Your task to perform on an android device: check out phone information Image 0: 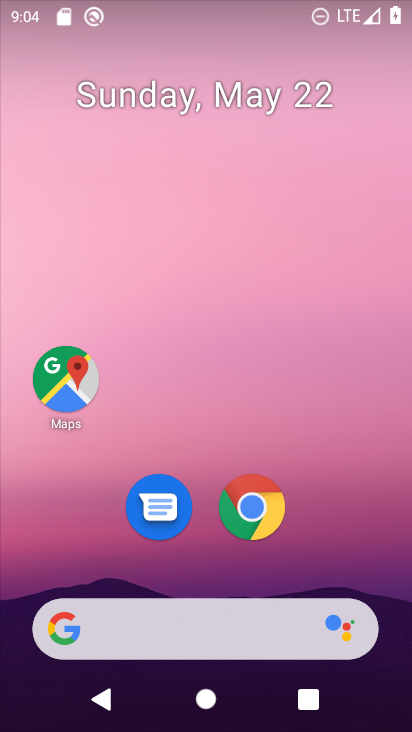
Step 0: drag from (157, 695) to (52, 26)
Your task to perform on an android device: check out phone information Image 1: 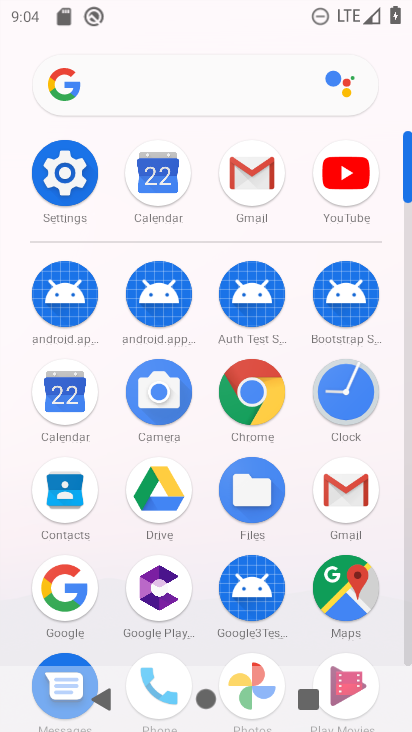
Step 1: click (51, 190)
Your task to perform on an android device: check out phone information Image 2: 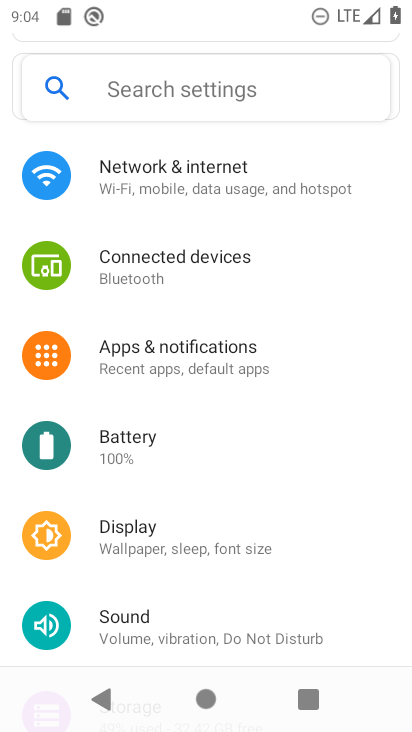
Step 2: drag from (186, 597) to (163, 9)
Your task to perform on an android device: check out phone information Image 3: 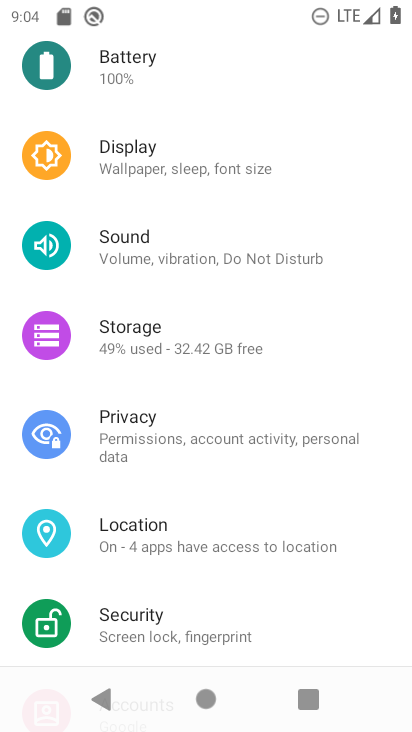
Step 3: drag from (232, 604) to (128, 12)
Your task to perform on an android device: check out phone information Image 4: 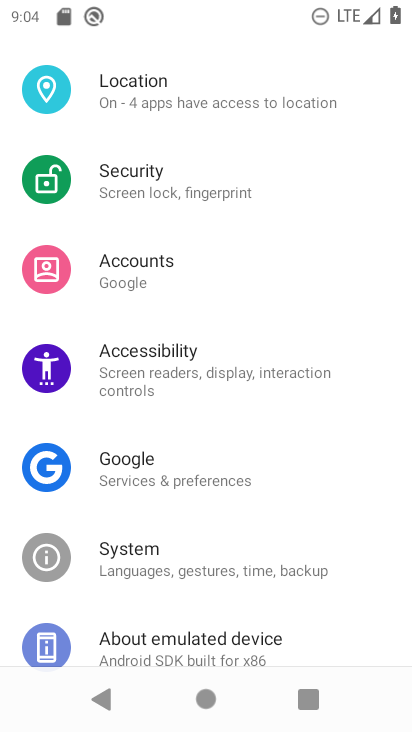
Step 4: drag from (191, 452) to (193, 40)
Your task to perform on an android device: check out phone information Image 5: 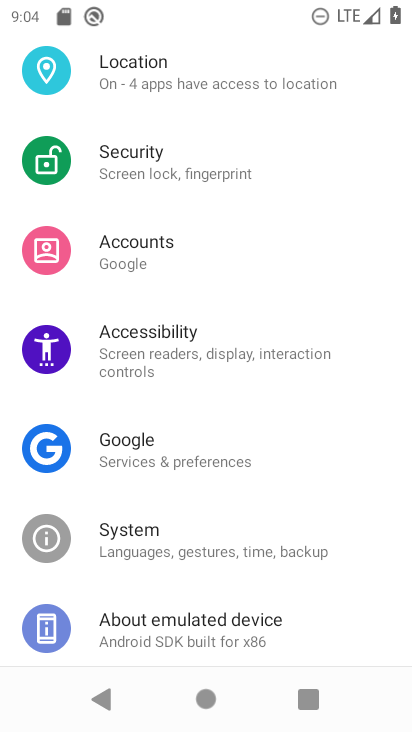
Step 5: click (203, 629)
Your task to perform on an android device: check out phone information Image 6: 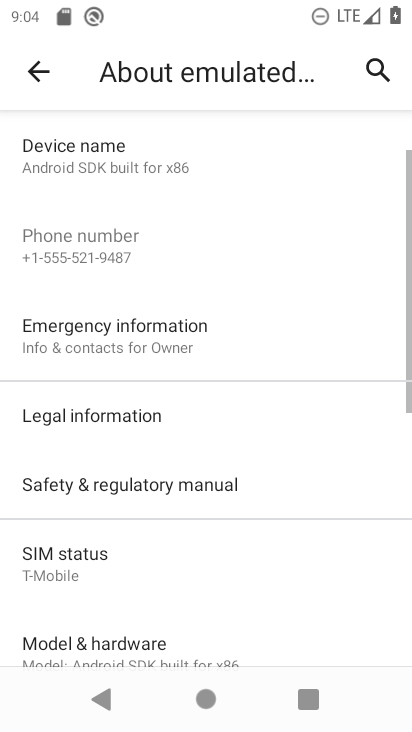
Step 6: task complete